Your task to perform on an android device: Open Amazon Image 0: 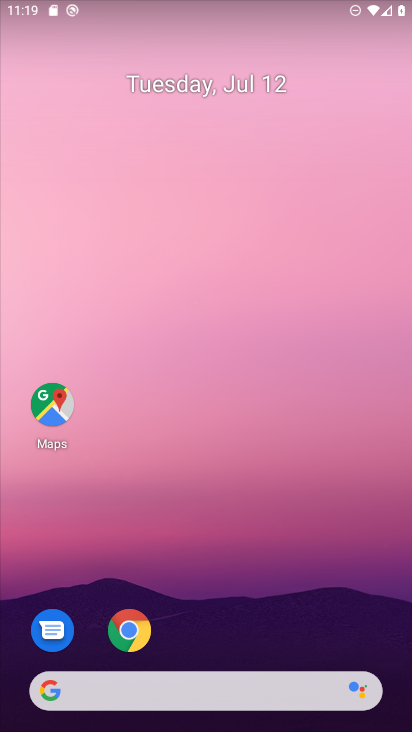
Step 0: drag from (298, 571) to (194, 93)
Your task to perform on an android device: Open Amazon Image 1: 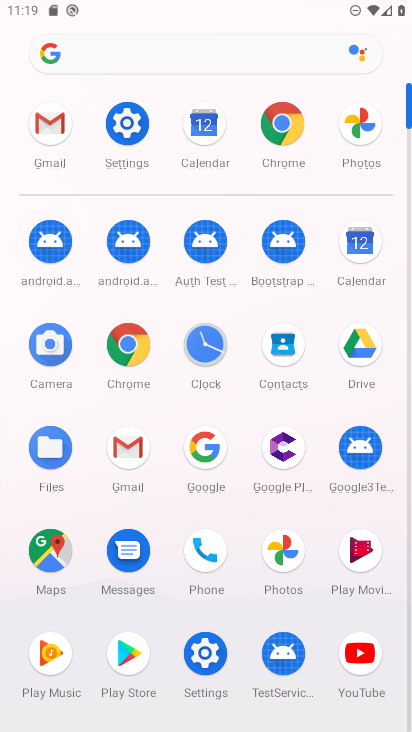
Step 1: click (130, 343)
Your task to perform on an android device: Open Amazon Image 2: 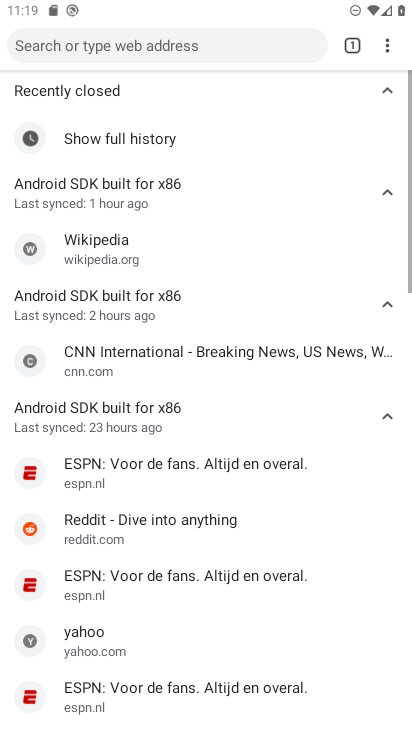
Step 2: click (205, 47)
Your task to perform on an android device: Open Amazon Image 3: 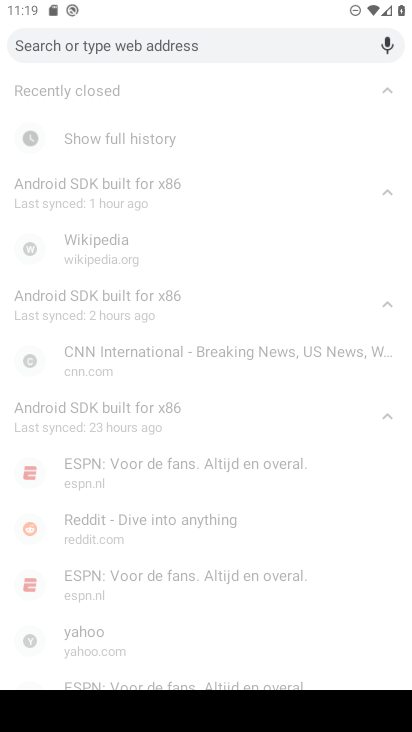
Step 3: type "amazon"
Your task to perform on an android device: Open Amazon Image 4: 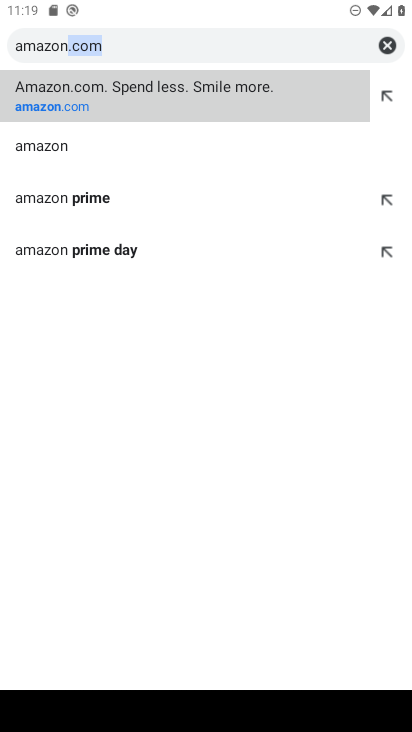
Step 4: click (89, 104)
Your task to perform on an android device: Open Amazon Image 5: 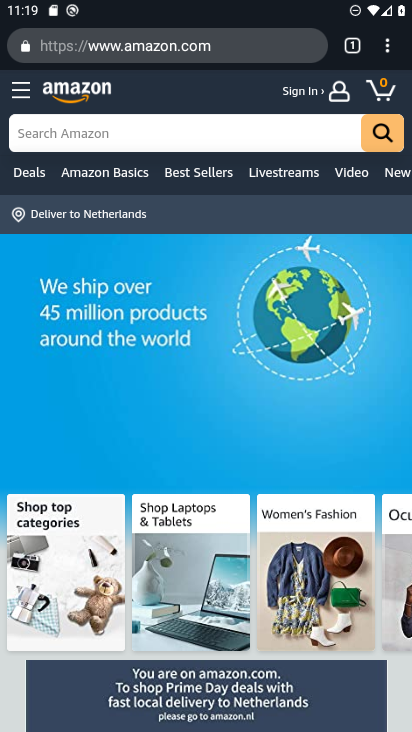
Step 5: task complete